Your task to perform on an android device: Go to sound settings Image 0: 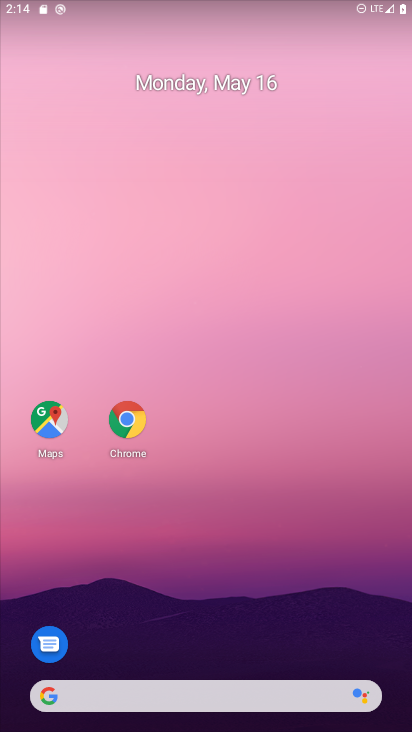
Step 0: drag from (183, 655) to (266, 257)
Your task to perform on an android device: Go to sound settings Image 1: 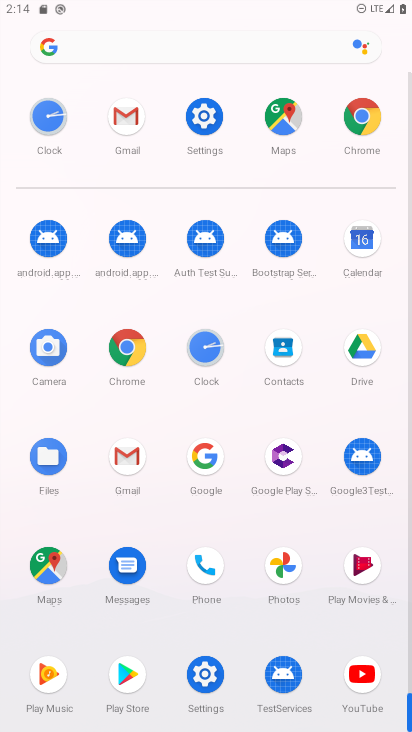
Step 1: click (198, 672)
Your task to perform on an android device: Go to sound settings Image 2: 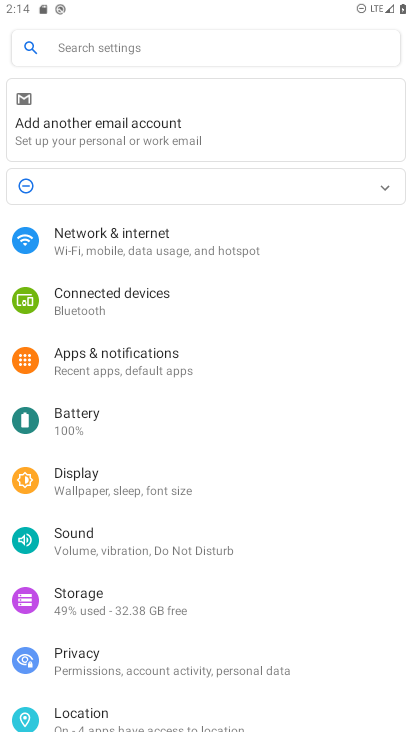
Step 2: click (96, 544)
Your task to perform on an android device: Go to sound settings Image 3: 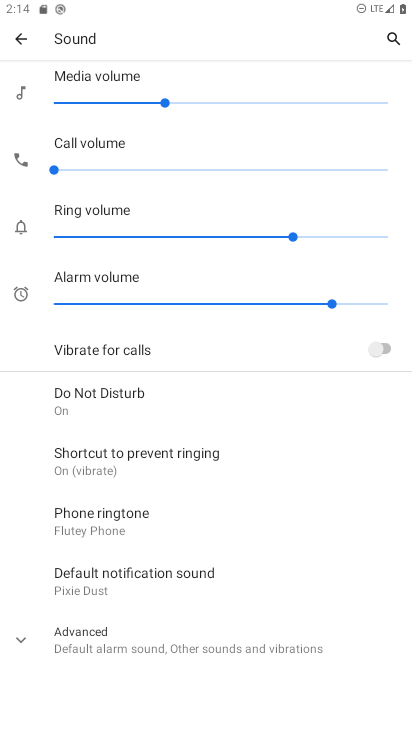
Step 3: task complete